Your task to perform on an android device: turn on the 12-hour format for clock Image 0: 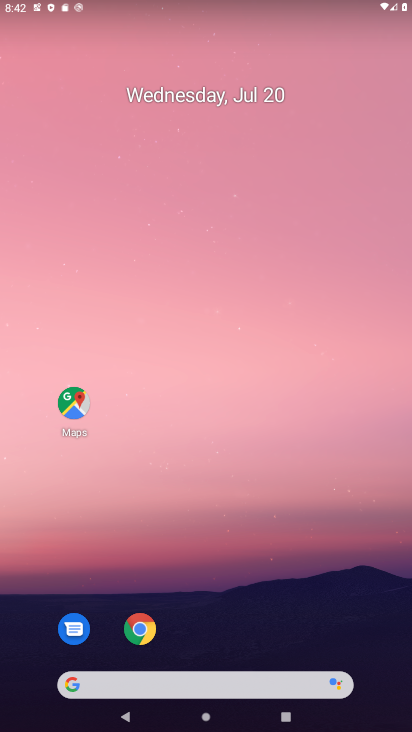
Step 0: drag from (223, 454) to (220, 154)
Your task to perform on an android device: turn on the 12-hour format for clock Image 1: 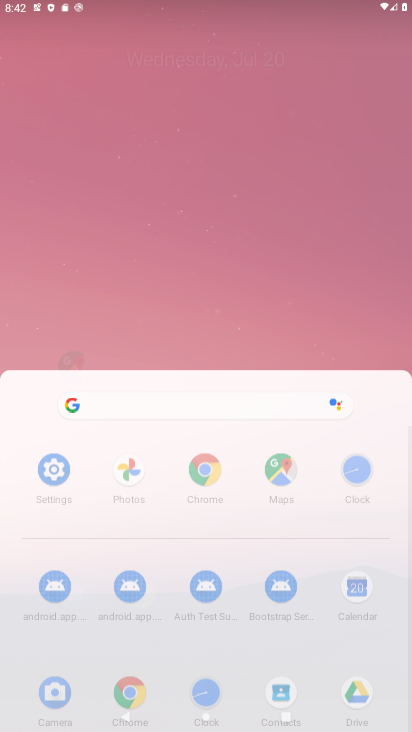
Step 1: drag from (281, 608) to (228, 142)
Your task to perform on an android device: turn on the 12-hour format for clock Image 2: 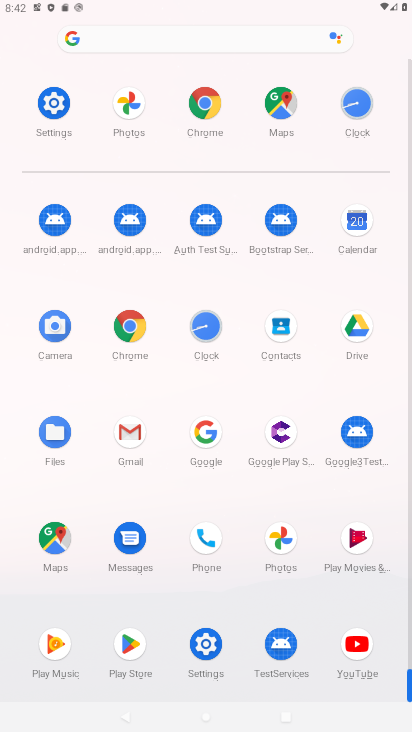
Step 2: drag from (204, 445) to (188, 124)
Your task to perform on an android device: turn on the 12-hour format for clock Image 3: 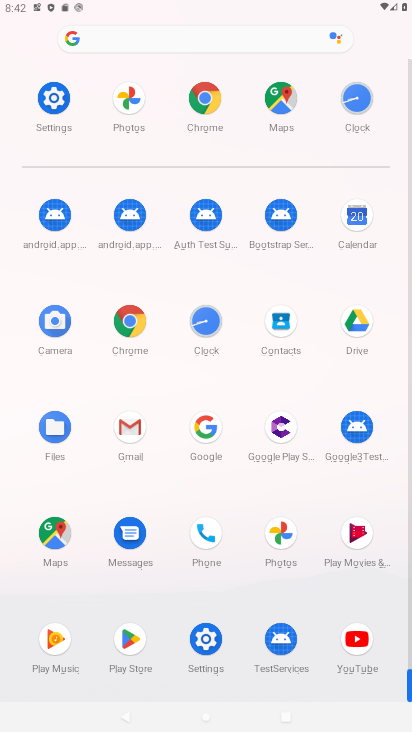
Step 3: click (196, 327)
Your task to perform on an android device: turn on the 12-hour format for clock Image 4: 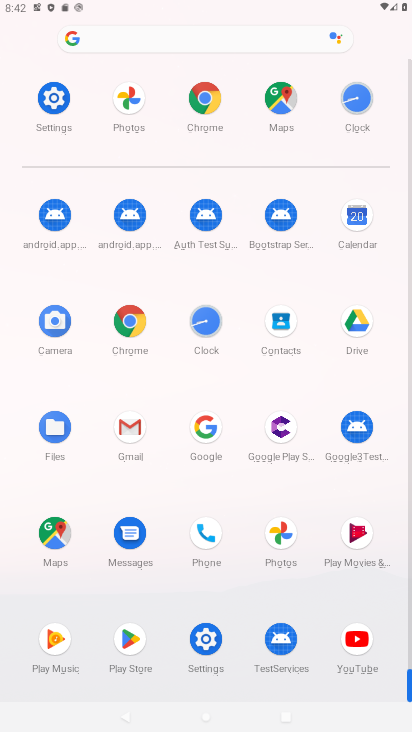
Step 4: click (203, 320)
Your task to perform on an android device: turn on the 12-hour format for clock Image 5: 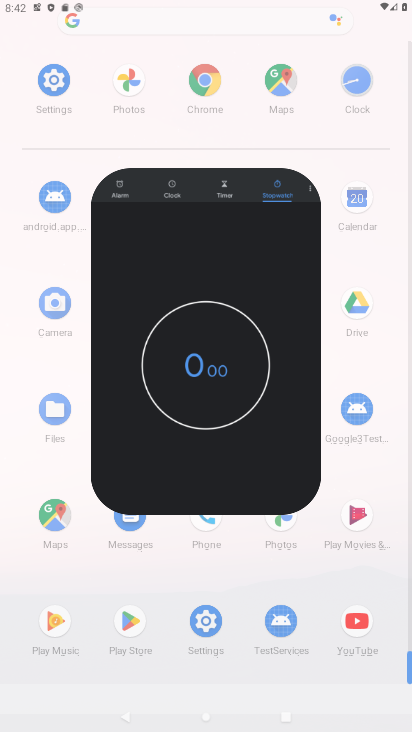
Step 5: click (208, 318)
Your task to perform on an android device: turn on the 12-hour format for clock Image 6: 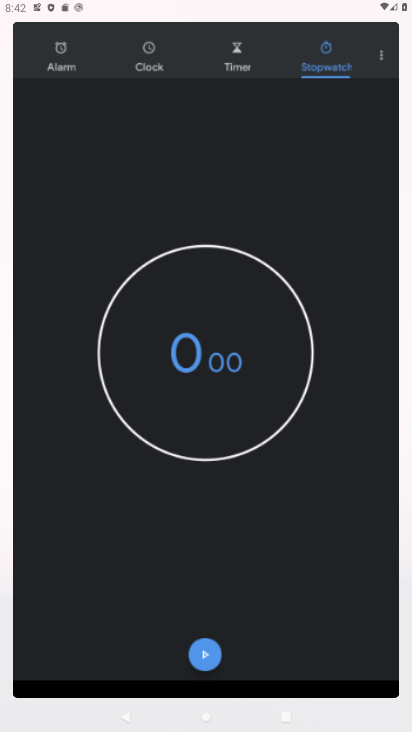
Step 6: click (210, 318)
Your task to perform on an android device: turn on the 12-hour format for clock Image 7: 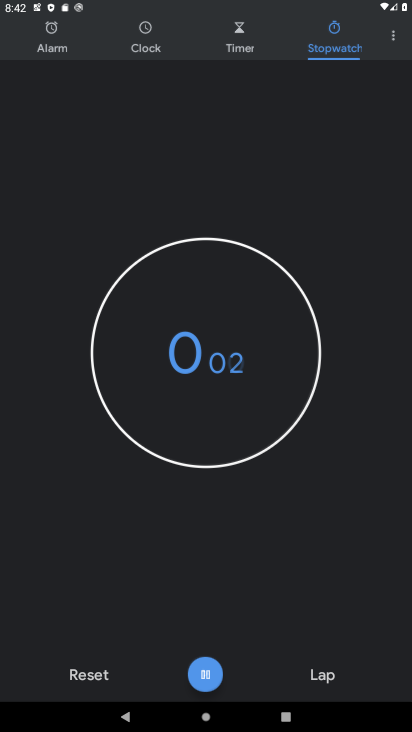
Step 7: click (212, 318)
Your task to perform on an android device: turn on the 12-hour format for clock Image 8: 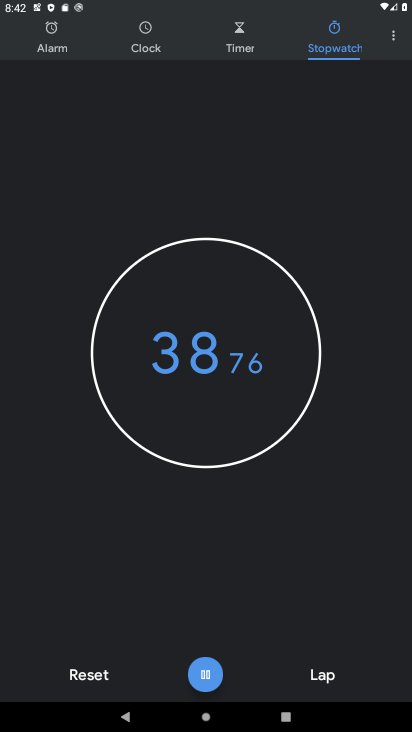
Step 8: click (214, 660)
Your task to perform on an android device: turn on the 12-hour format for clock Image 9: 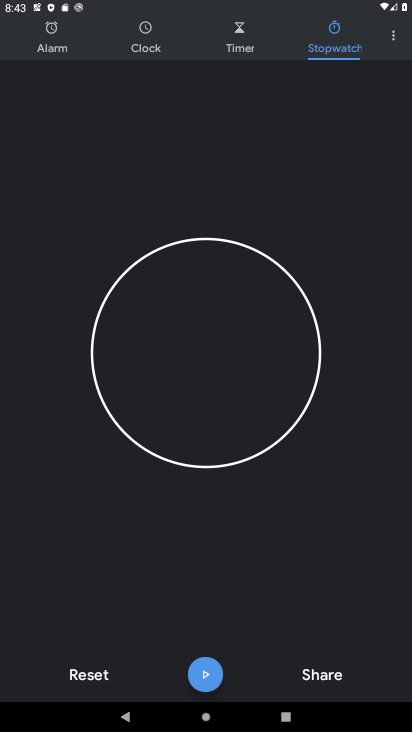
Step 9: click (206, 677)
Your task to perform on an android device: turn on the 12-hour format for clock Image 10: 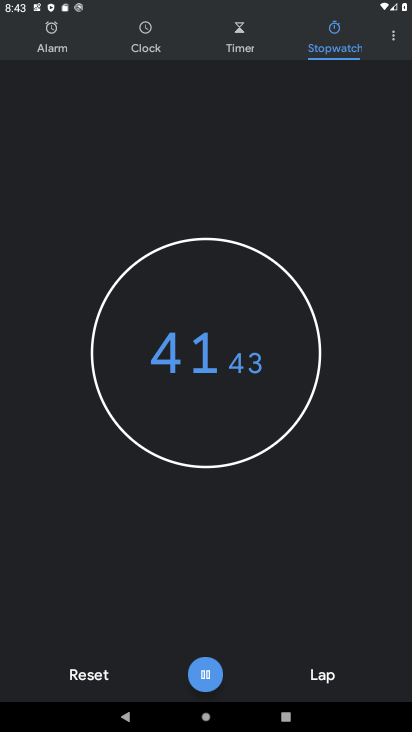
Step 10: click (390, 37)
Your task to perform on an android device: turn on the 12-hour format for clock Image 11: 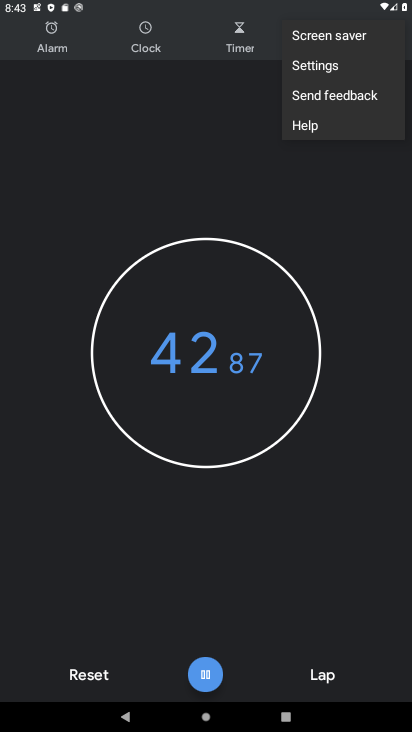
Step 11: click (399, 36)
Your task to perform on an android device: turn on the 12-hour format for clock Image 12: 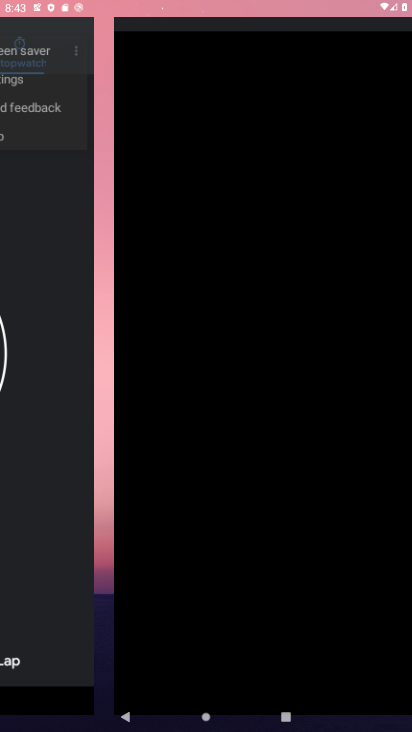
Step 12: click (333, 65)
Your task to perform on an android device: turn on the 12-hour format for clock Image 13: 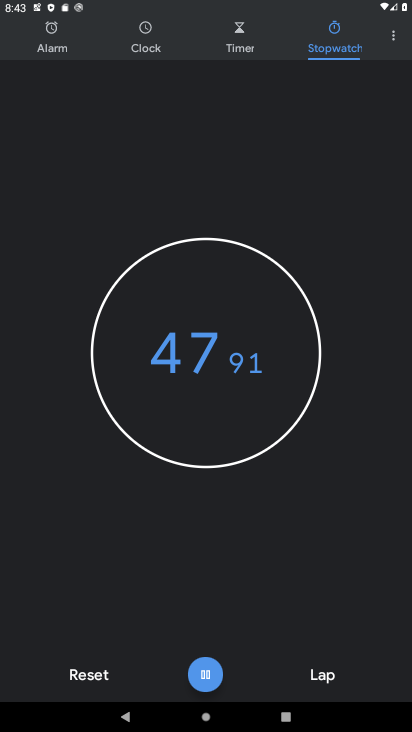
Step 13: click (199, 672)
Your task to perform on an android device: turn on the 12-hour format for clock Image 14: 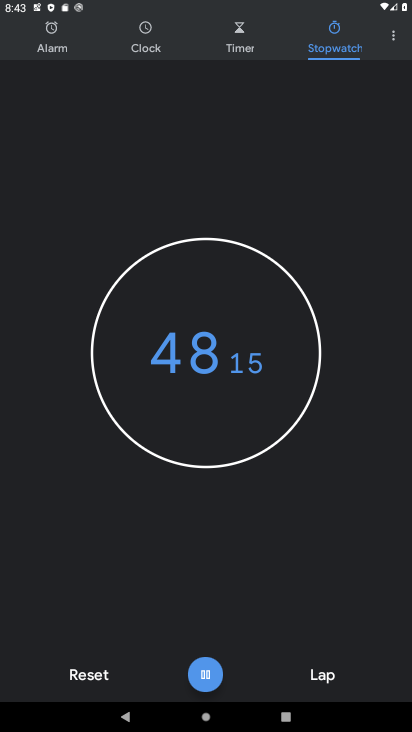
Step 14: click (205, 671)
Your task to perform on an android device: turn on the 12-hour format for clock Image 15: 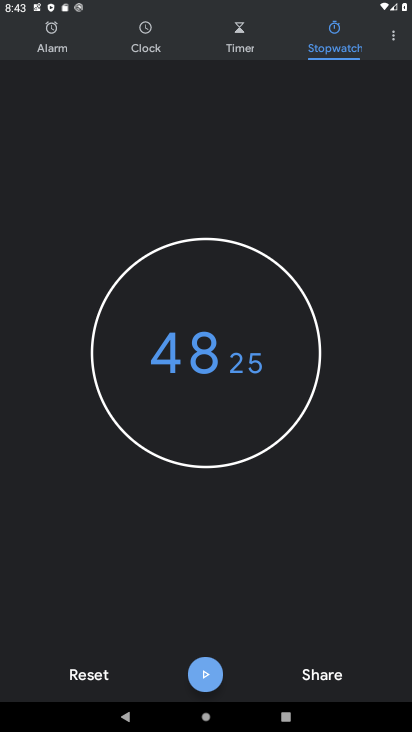
Step 15: click (206, 673)
Your task to perform on an android device: turn on the 12-hour format for clock Image 16: 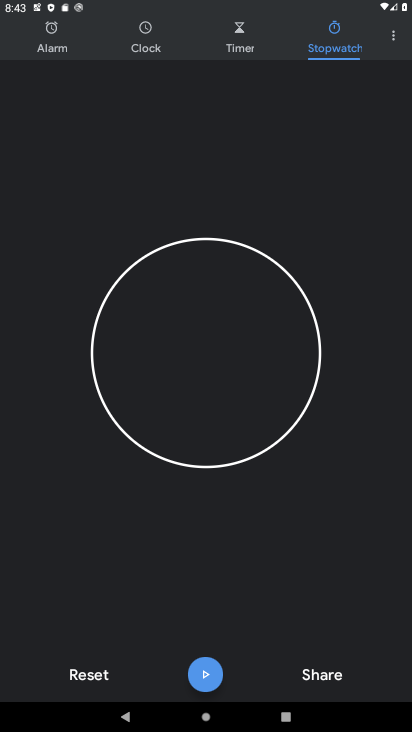
Step 16: click (393, 40)
Your task to perform on an android device: turn on the 12-hour format for clock Image 17: 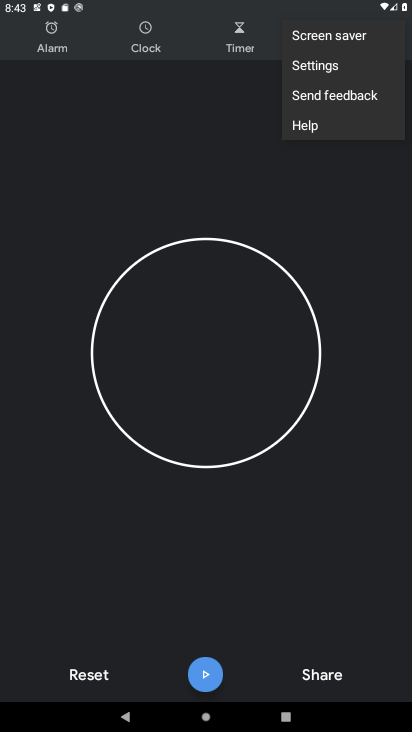
Step 17: click (338, 69)
Your task to perform on an android device: turn on the 12-hour format for clock Image 18: 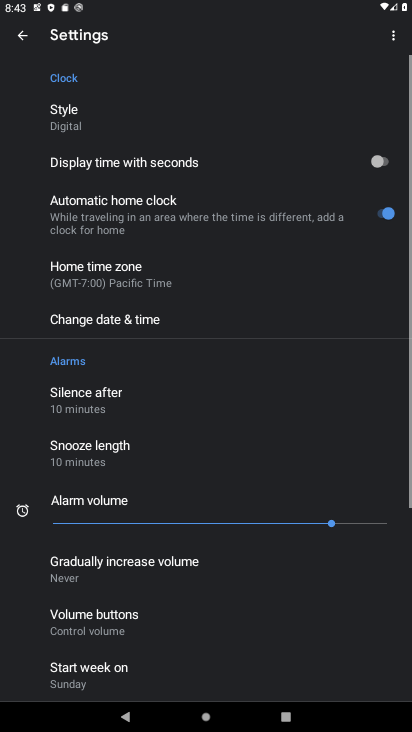
Step 18: click (319, 67)
Your task to perform on an android device: turn on the 12-hour format for clock Image 19: 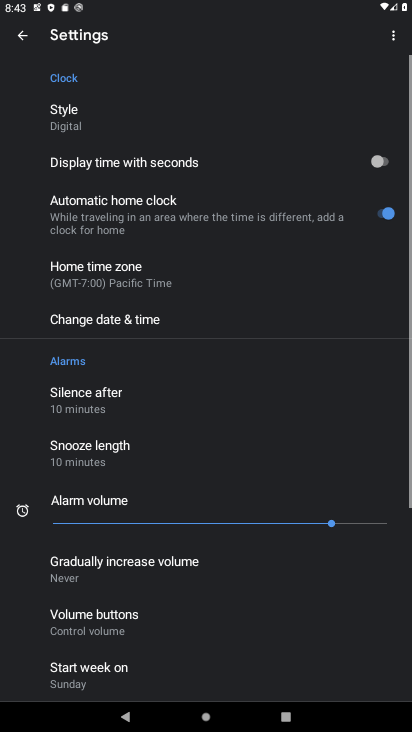
Step 19: click (319, 67)
Your task to perform on an android device: turn on the 12-hour format for clock Image 20: 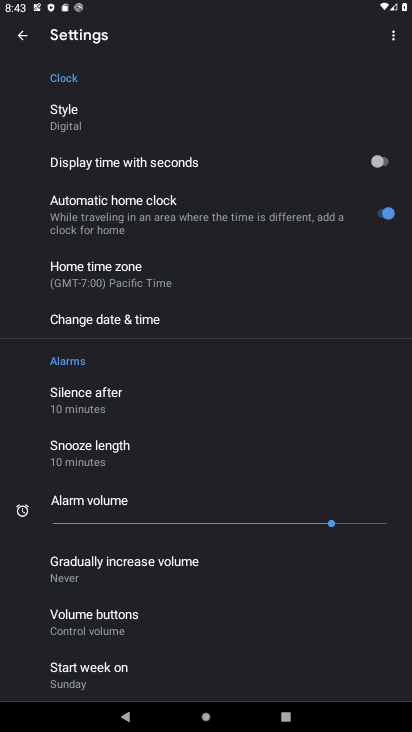
Step 20: click (112, 324)
Your task to perform on an android device: turn on the 12-hour format for clock Image 21: 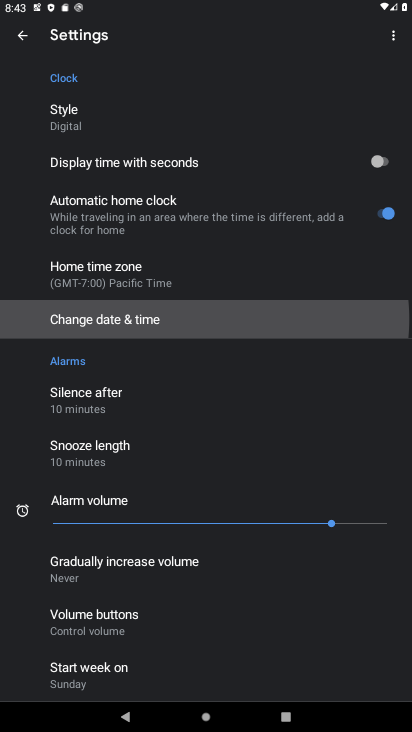
Step 21: click (112, 324)
Your task to perform on an android device: turn on the 12-hour format for clock Image 22: 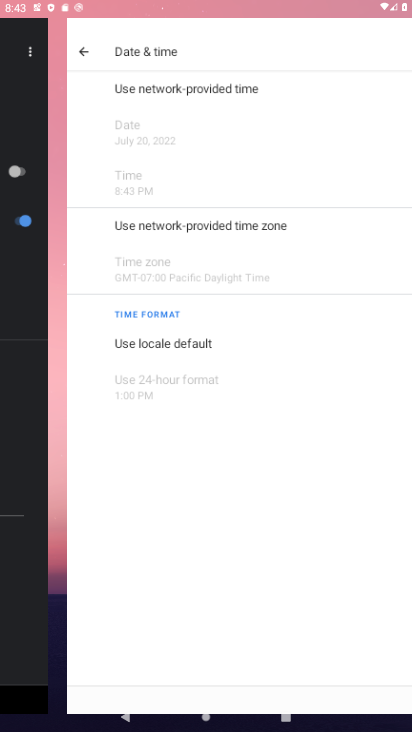
Step 22: click (112, 324)
Your task to perform on an android device: turn on the 12-hour format for clock Image 23: 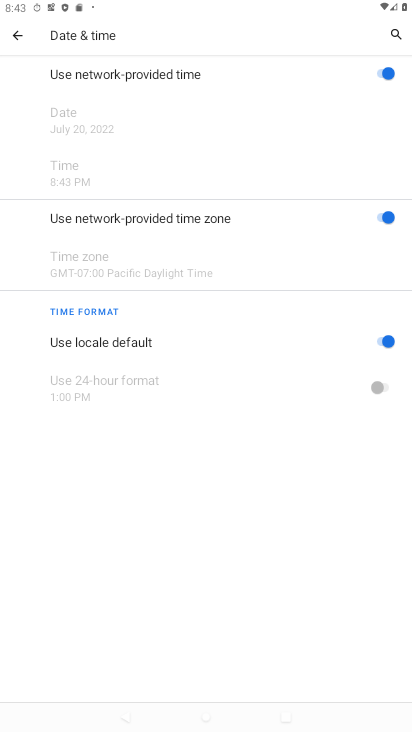
Step 23: click (376, 381)
Your task to perform on an android device: turn on the 12-hour format for clock Image 24: 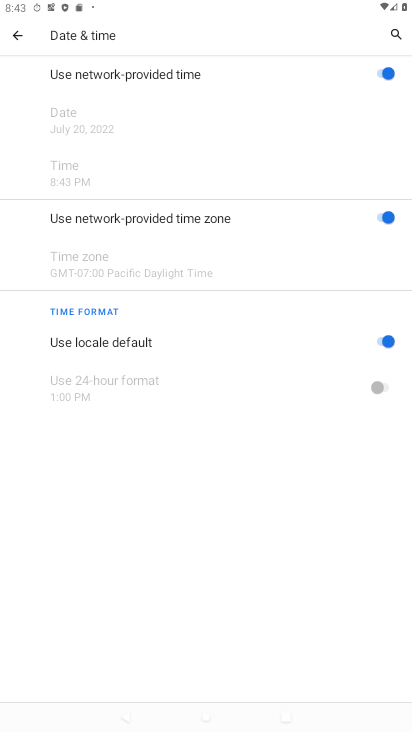
Step 24: click (388, 345)
Your task to perform on an android device: turn on the 12-hour format for clock Image 25: 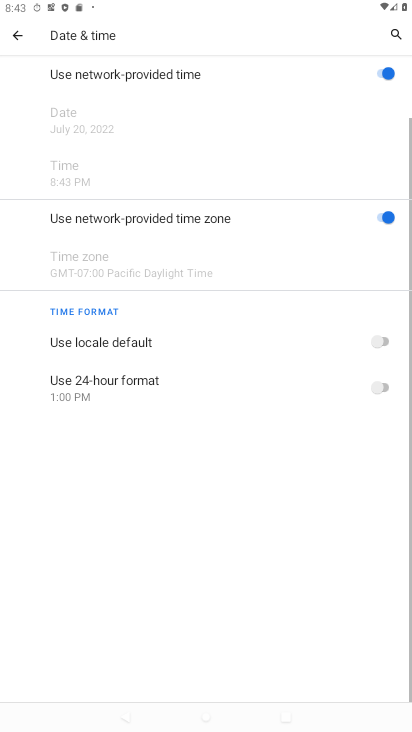
Step 25: click (378, 386)
Your task to perform on an android device: turn on the 12-hour format for clock Image 26: 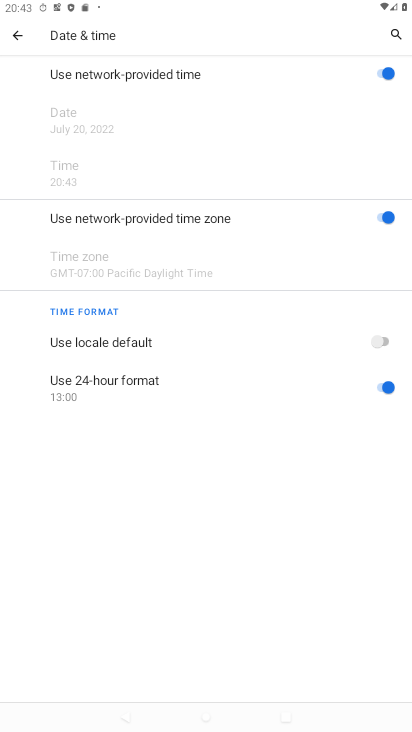
Step 26: task complete